Your task to perform on an android device: uninstall "Pinterest" Image 0: 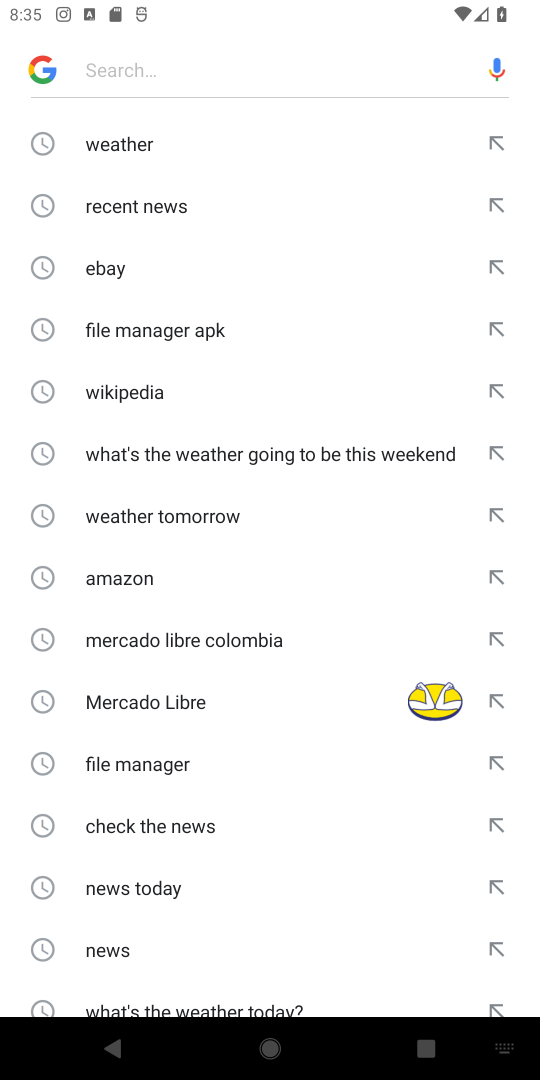
Step 0: press home button
Your task to perform on an android device: uninstall "Pinterest" Image 1: 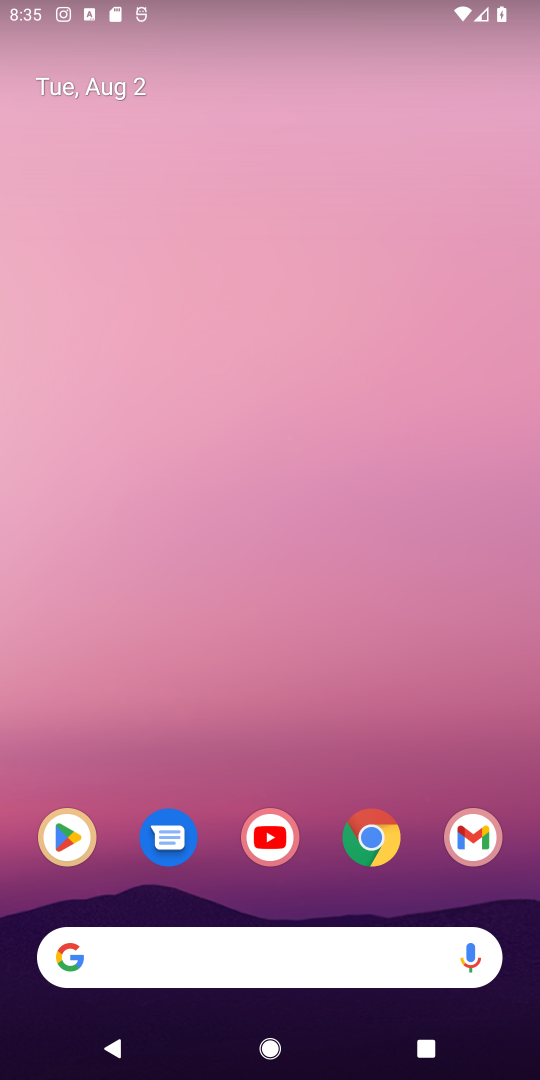
Step 1: click (64, 848)
Your task to perform on an android device: uninstall "Pinterest" Image 2: 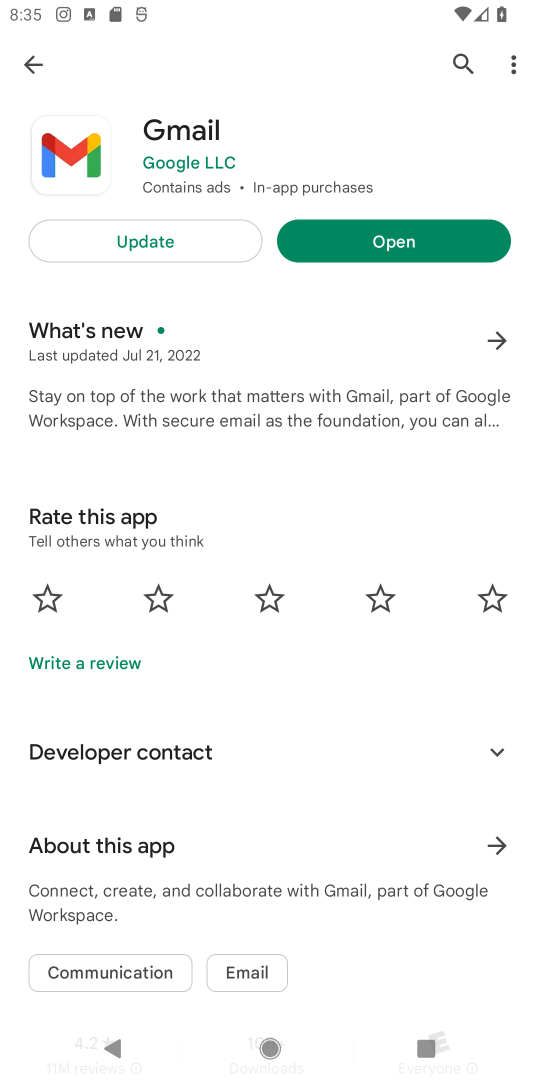
Step 2: click (474, 90)
Your task to perform on an android device: uninstall "Pinterest" Image 3: 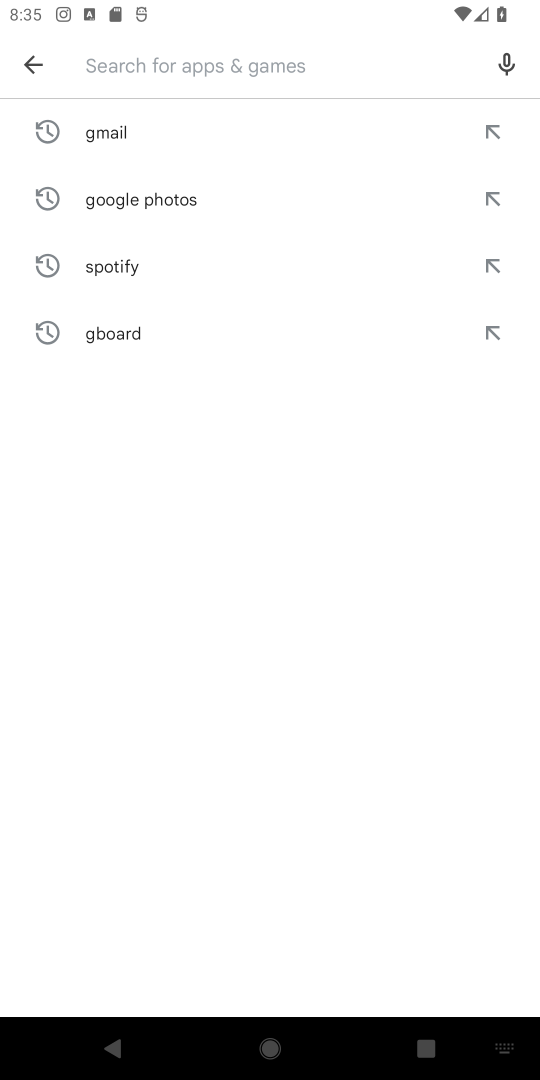
Step 3: type "Pinterest"
Your task to perform on an android device: uninstall "Pinterest" Image 4: 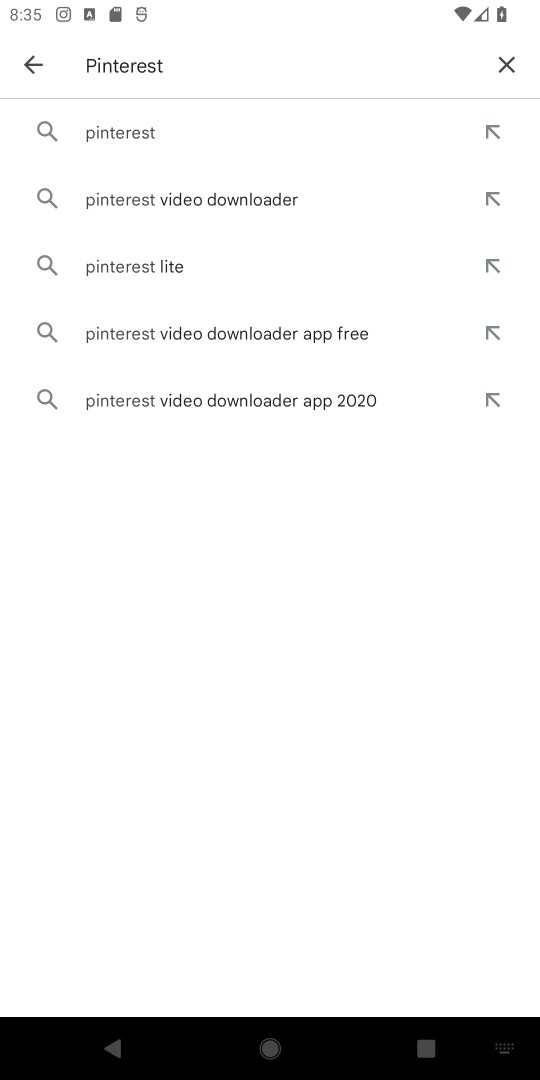
Step 4: click (112, 126)
Your task to perform on an android device: uninstall "Pinterest" Image 5: 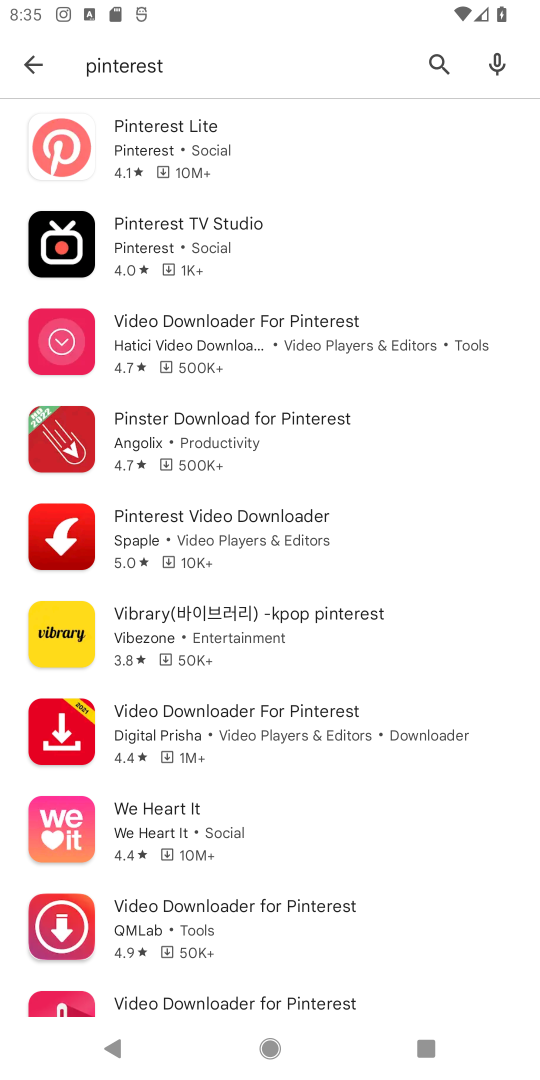
Step 5: task complete